Your task to perform on an android device: Search for vegetarian restaurants on Maps Image 0: 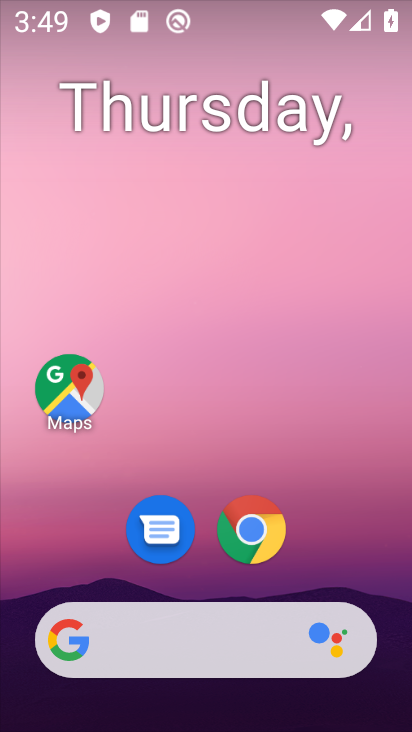
Step 0: click (67, 401)
Your task to perform on an android device: Search for vegetarian restaurants on Maps Image 1: 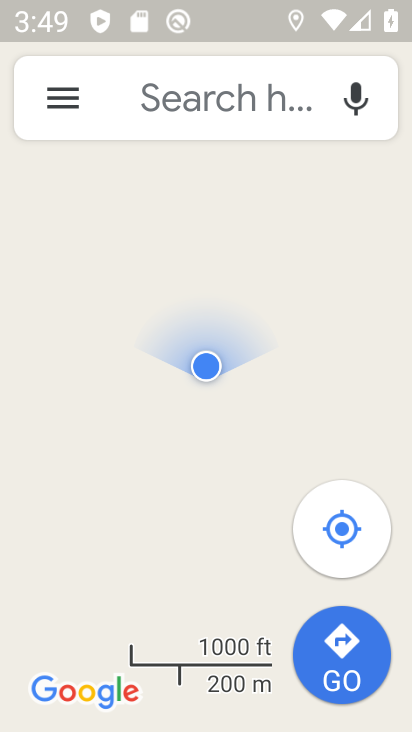
Step 1: click (154, 101)
Your task to perform on an android device: Search for vegetarian restaurants on Maps Image 2: 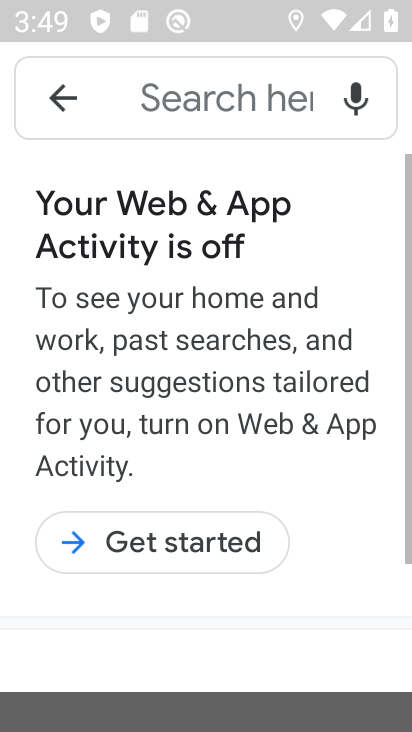
Step 2: click (154, 101)
Your task to perform on an android device: Search for vegetarian restaurants on Maps Image 3: 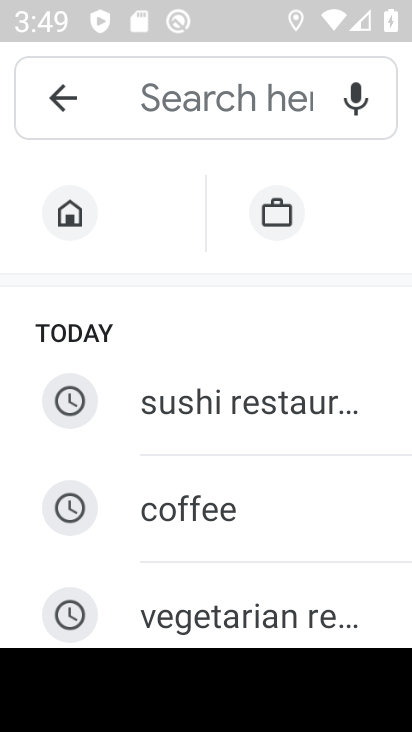
Step 3: type "vegeration reastaurent"
Your task to perform on an android device: Search for vegetarian restaurants on Maps Image 4: 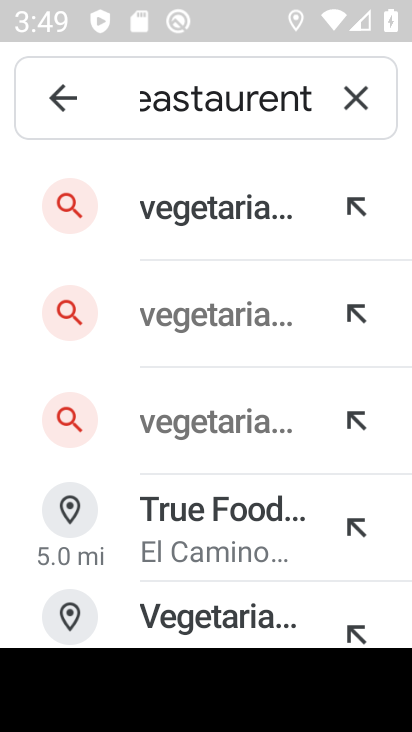
Step 4: click (176, 228)
Your task to perform on an android device: Search for vegetarian restaurants on Maps Image 5: 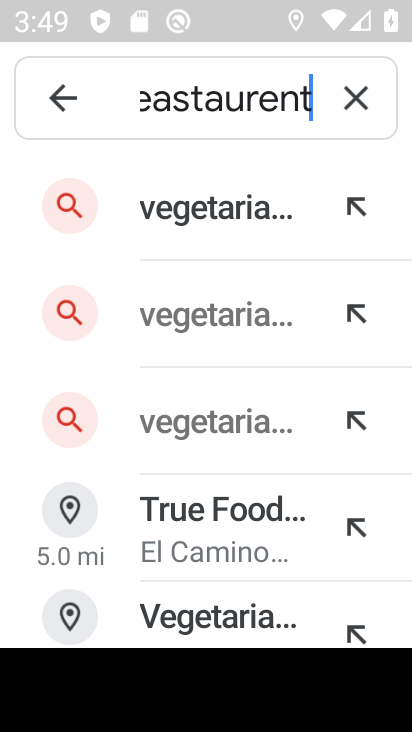
Step 5: click (179, 208)
Your task to perform on an android device: Search for vegetarian restaurants on Maps Image 6: 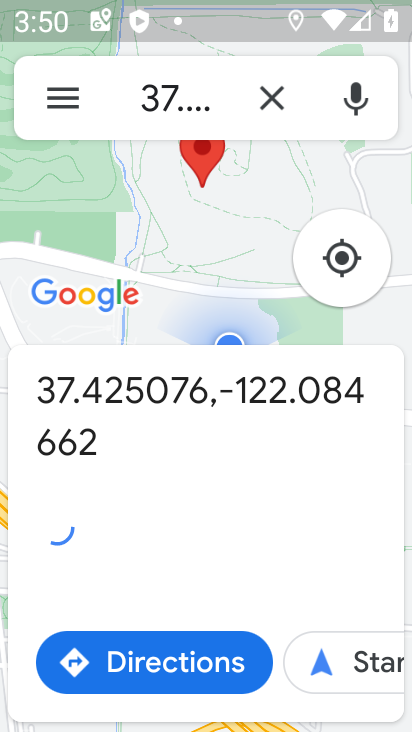
Step 6: task complete